Your task to perform on an android device: turn on sleep mode Image 0: 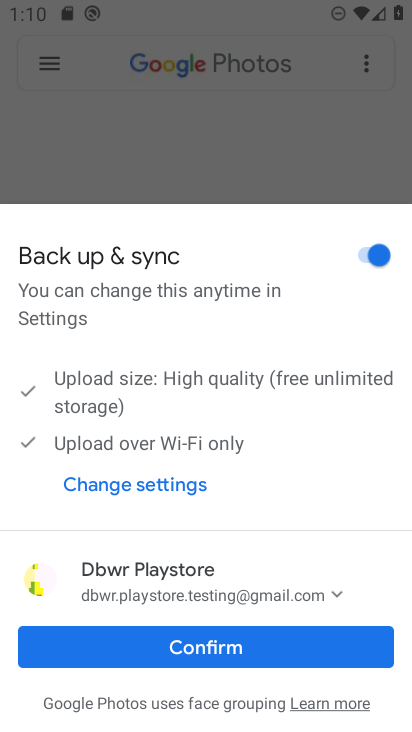
Step 0: press home button
Your task to perform on an android device: turn on sleep mode Image 1: 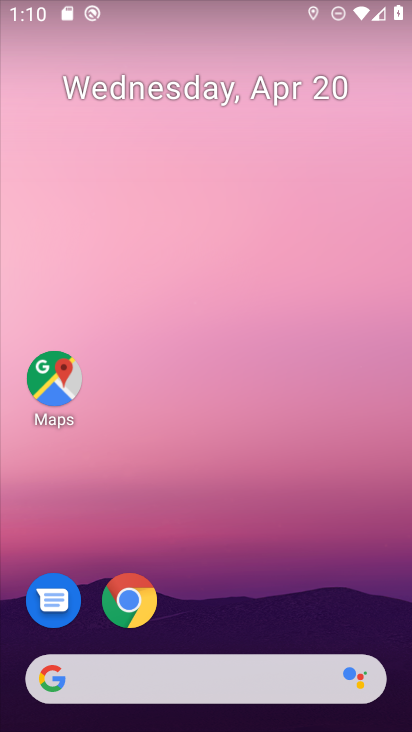
Step 1: drag from (342, 619) to (250, 173)
Your task to perform on an android device: turn on sleep mode Image 2: 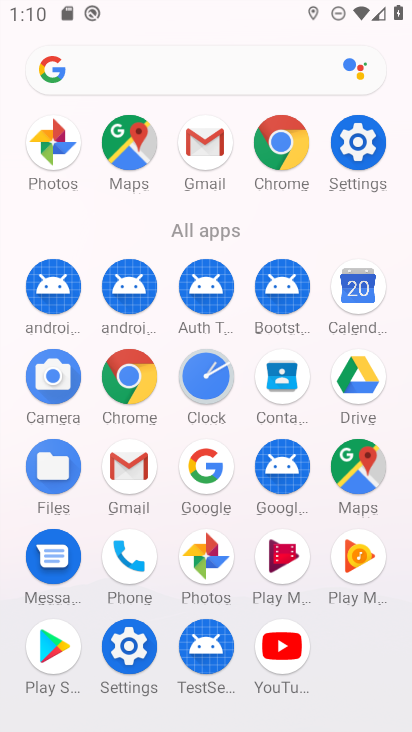
Step 2: click (128, 645)
Your task to perform on an android device: turn on sleep mode Image 3: 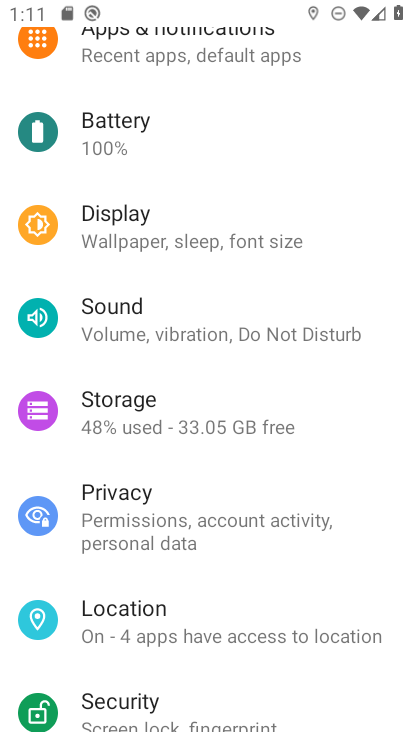
Step 3: click (117, 222)
Your task to perform on an android device: turn on sleep mode Image 4: 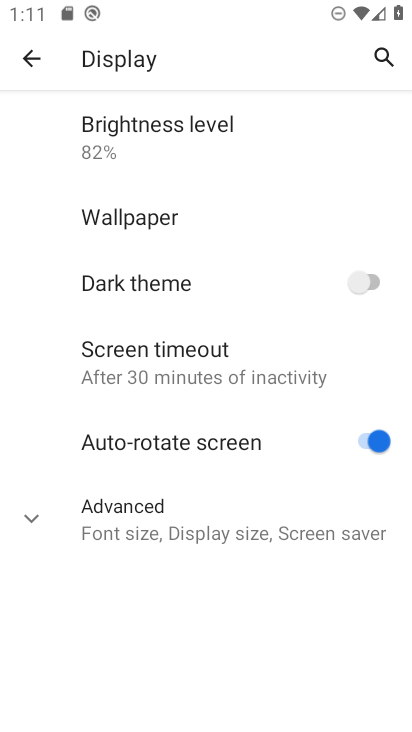
Step 4: click (31, 520)
Your task to perform on an android device: turn on sleep mode Image 5: 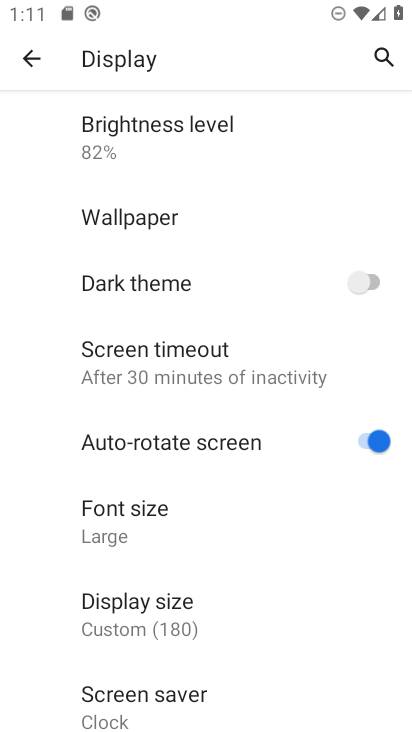
Step 5: task complete